Your task to perform on an android device: Open settings on Google Maps Image 0: 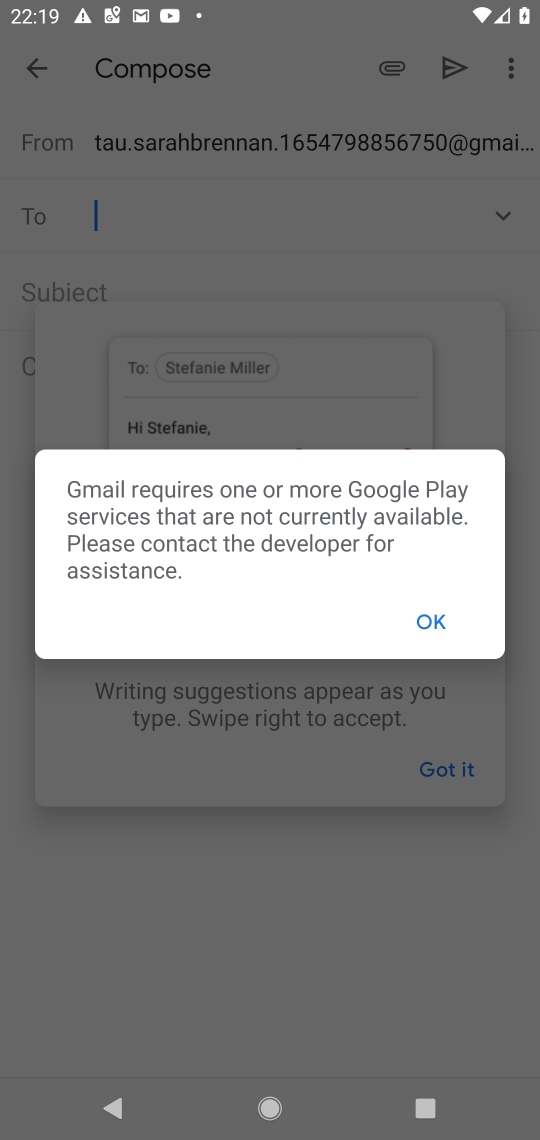
Step 0: press home button
Your task to perform on an android device: Open settings on Google Maps Image 1: 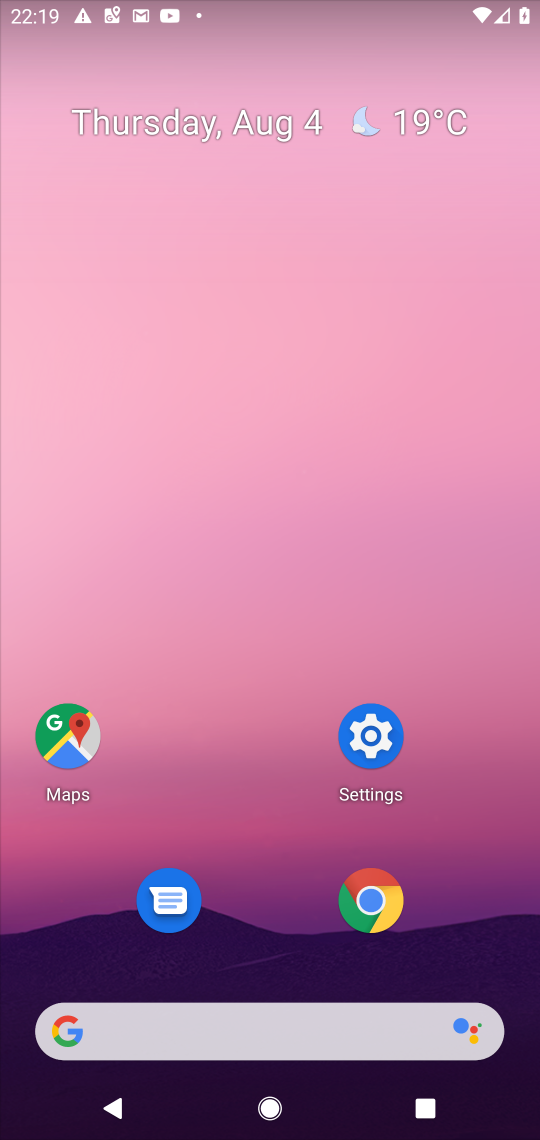
Step 1: click (67, 745)
Your task to perform on an android device: Open settings on Google Maps Image 2: 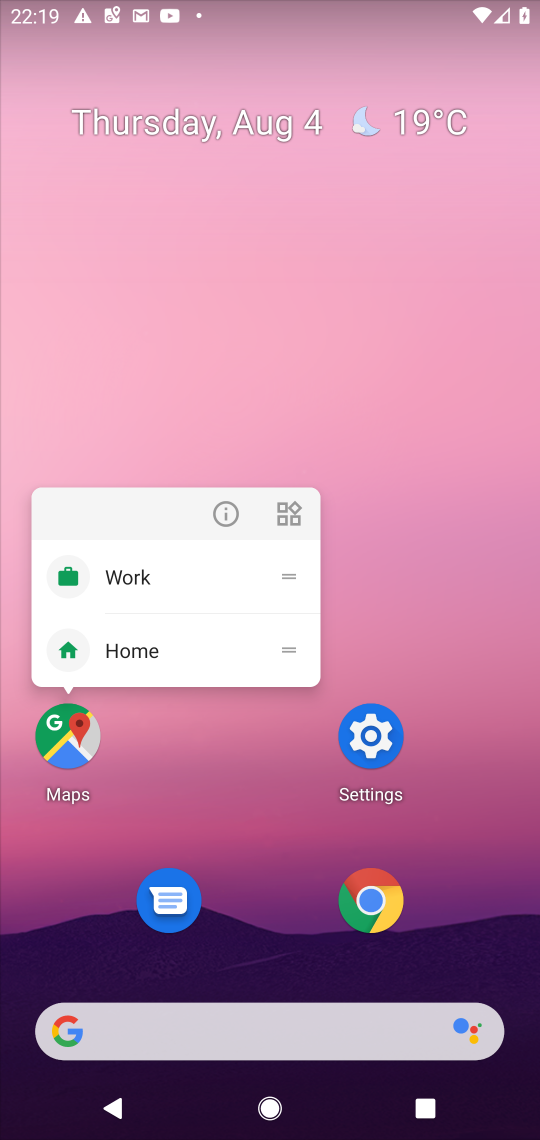
Step 2: click (67, 731)
Your task to perform on an android device: Open settings on Google Maps Image 3: 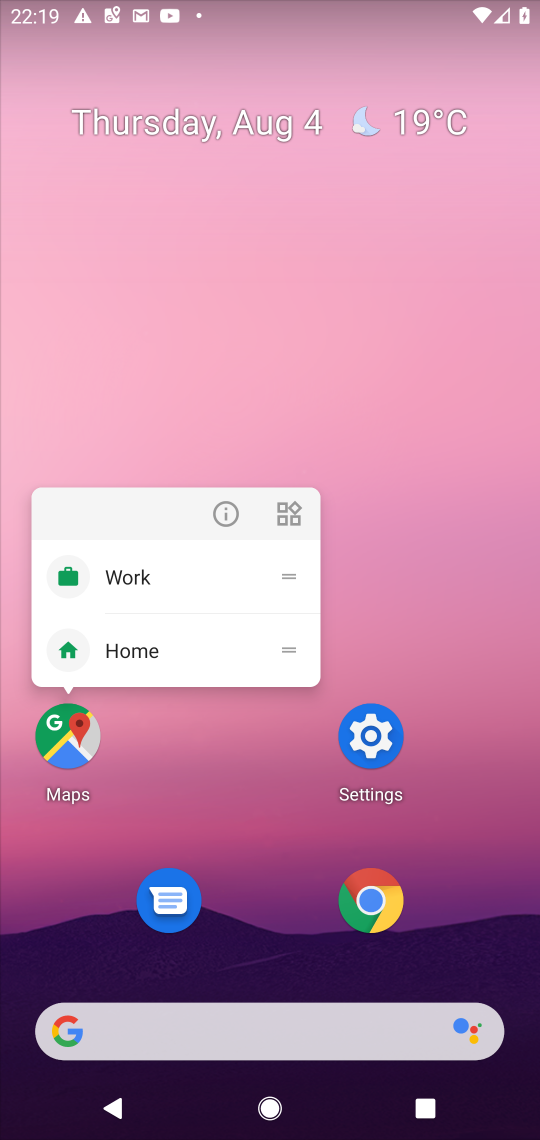
Step 3: click (66, 734)
Your task to perform on an android device: Open settings on Google Maps Image 4: 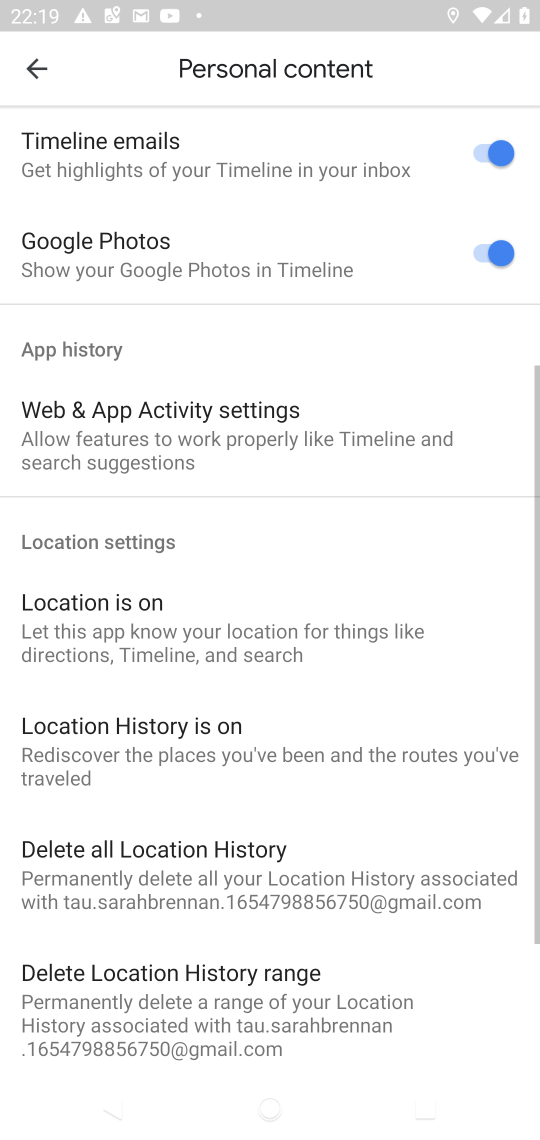
Step 4: click (25, 63)
Your task to perform on an android device: Open settings on Google Maps Image 5: 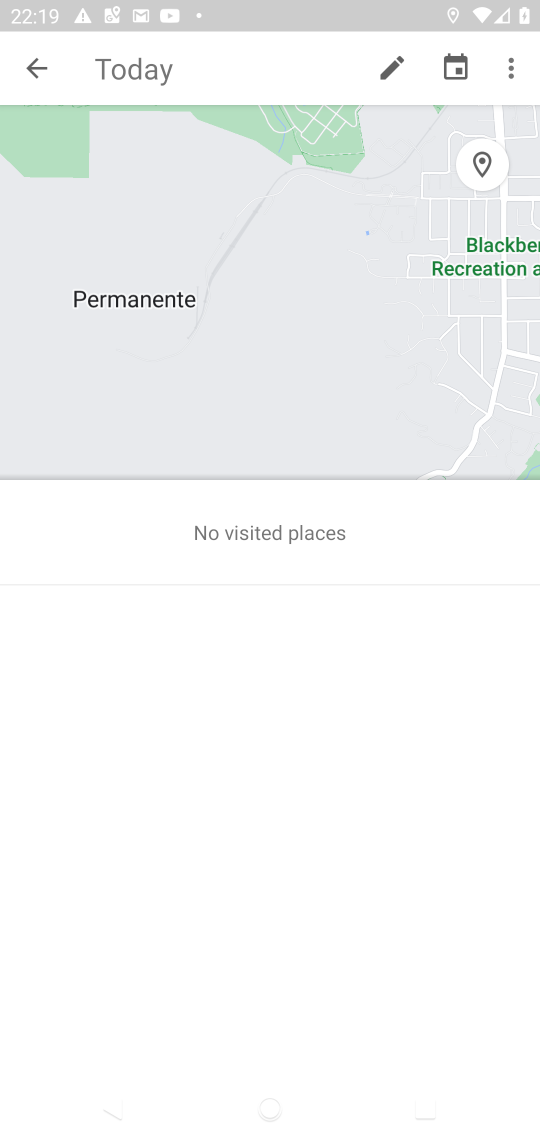
Step 5: click (38, 65)
Your task to perform on an android device: Open settings on Google Maps Image 6: 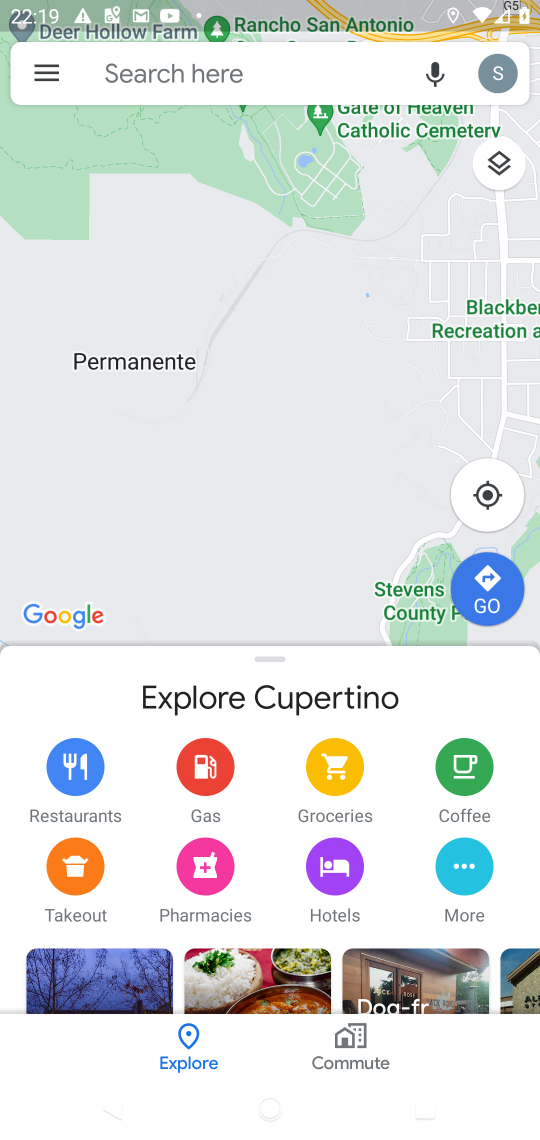
Step 6: click (41, 71)
Your task to perform on an android device: Open settings on Google Maps Image 7: 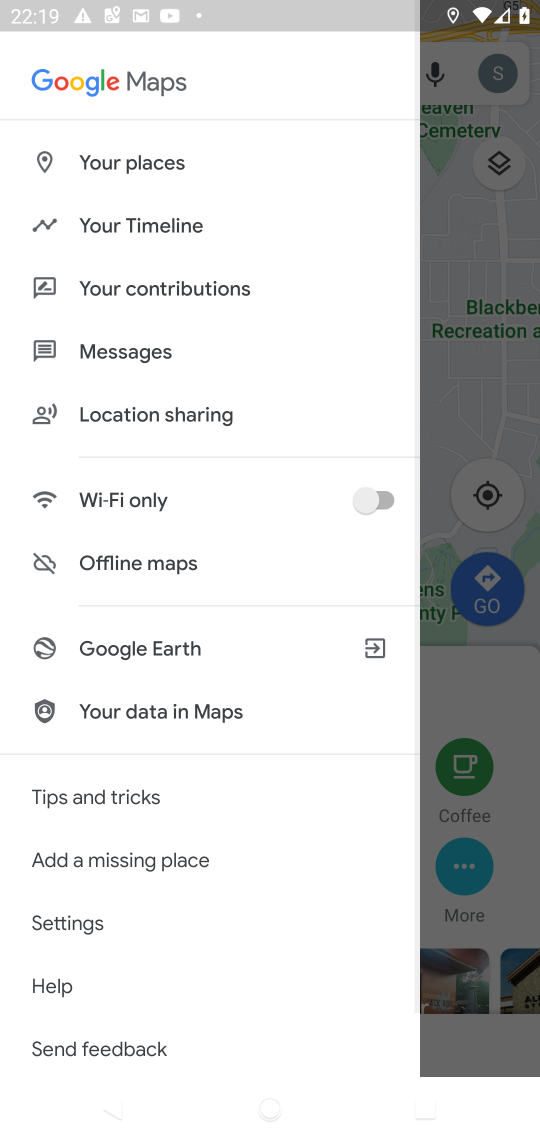
Step 7: click (90, 918)
Your task to perform on an android device: Open settings on Google Maps Image 8: 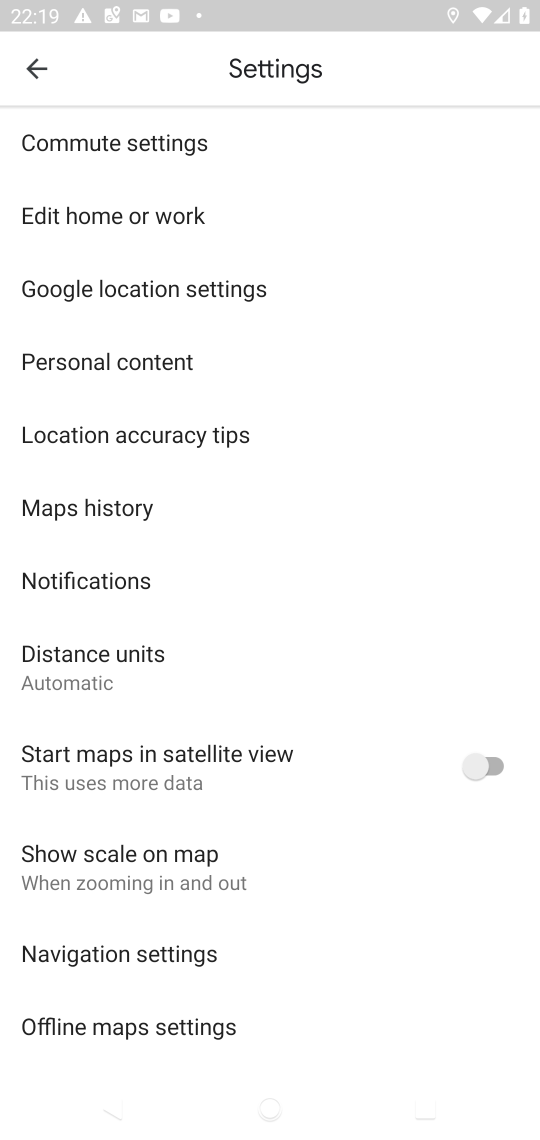
Step 8: task complete